Your task to perform on an android device: remove spam from my inbox in the gmail app Image 0: 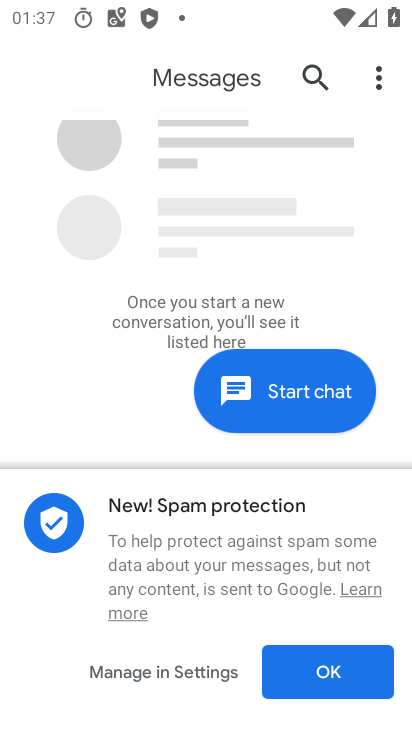
Step 0: press back button
Your task to perform on an android device: remove spam from my inbox in the gmail app Image 1: 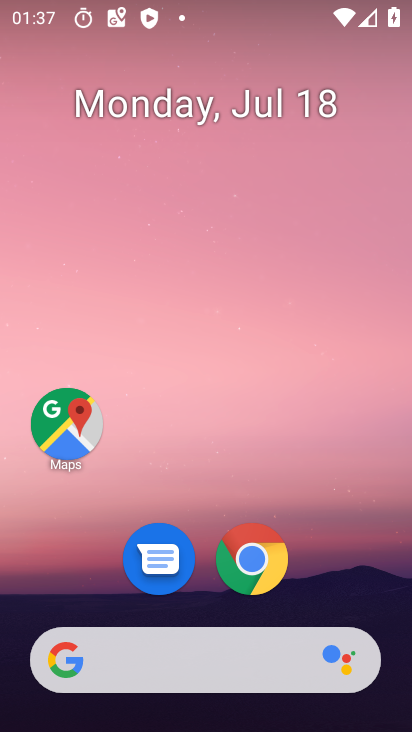
Step 1: drag from (90, 540) to (273, 2)
Your task to perform on an android device: remove spam from my inbox in the gmail app Image 2: 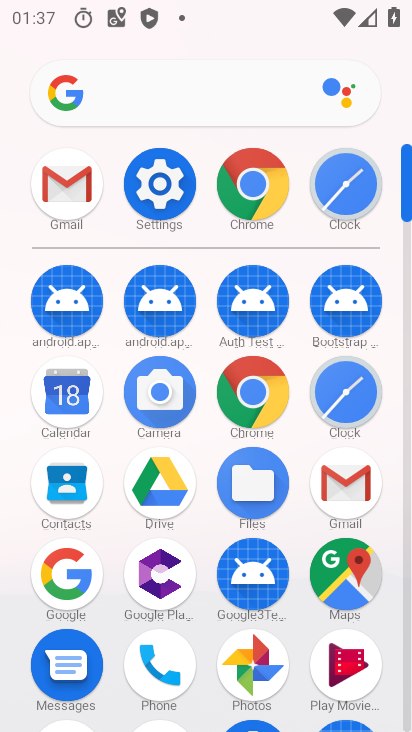
Step 2: click (53, 180)
Your task to perform on an android device: remove spam from my inbox in the gmail app Image 3: 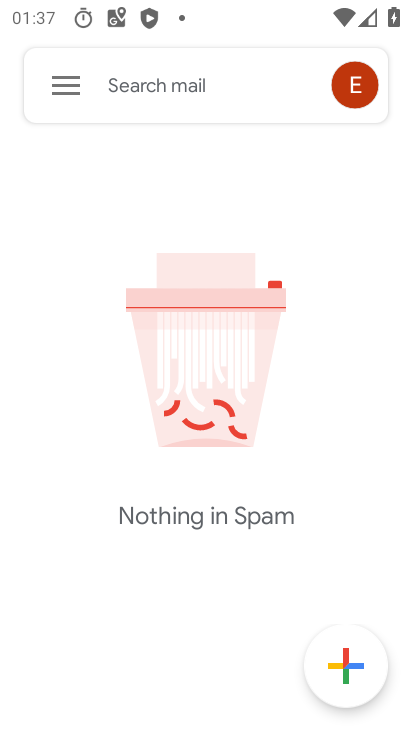
Step 3: click (65, 75)
Your task to perform on an android device: remove spam from my inbox in the gmail app Image 4: 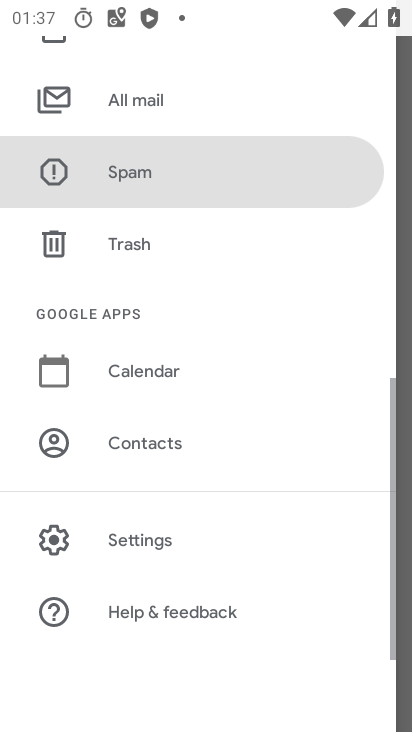
Step 4: click (234, 166)
Your task to perform on an android device: remove spam from my inbox in the gmail app Image 5: 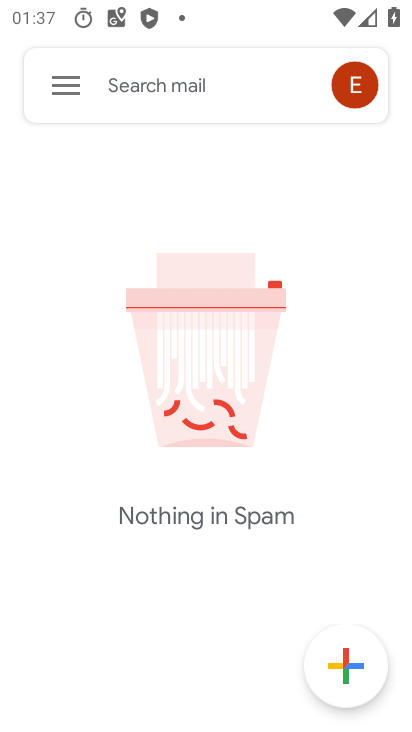
Step 5: task complete